Your task to perform on an android device: toggle priority inbox in the gmail app Image 0: 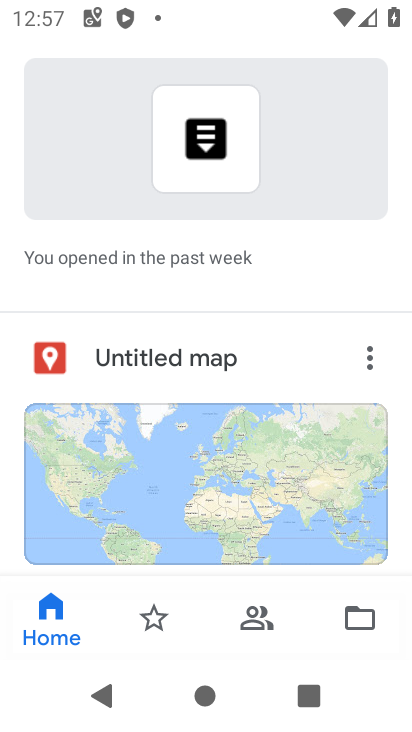
Step 0: press home button
Your task to perform on an android device: toggle priority inbox in the gmail app Image 1: 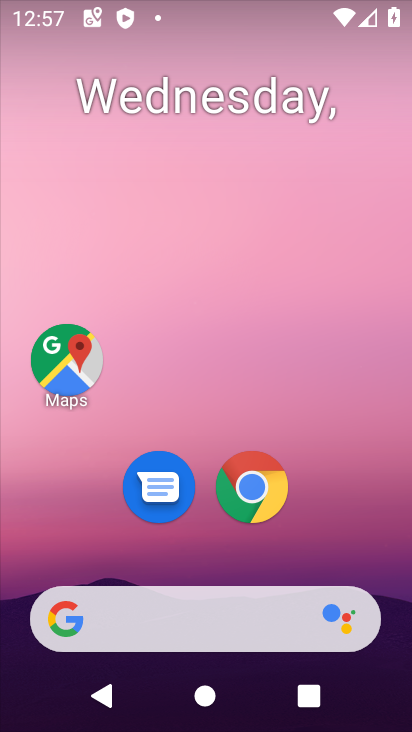
Step 1: drag from (257, 553) to (198, 159)
Your task to perform on an android device: toggle priority inbox in the gmail app Image 2: 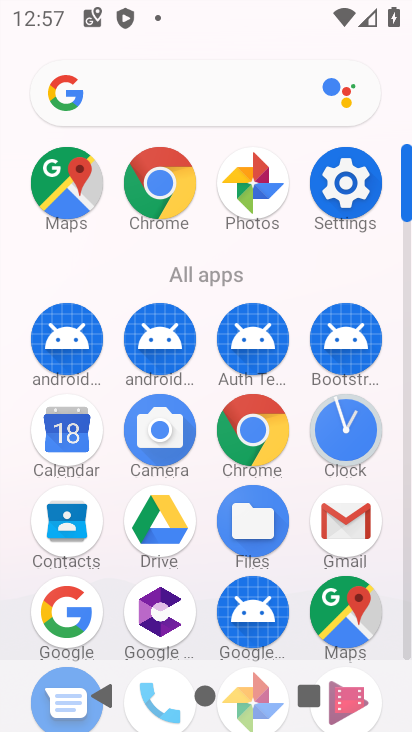
Step 2: click (343, 525)
Your task to perform on an android device: toggle priority inbox in the gmail app Image 3: 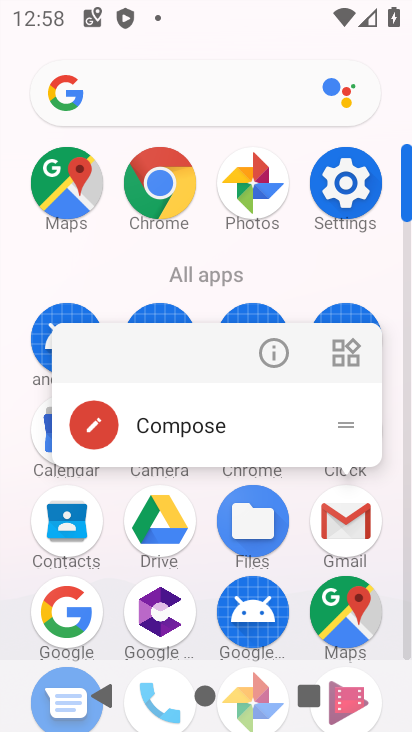
Step 3: click (348, 510)
Your task to perform on an android device: toggle priority inbox in the gmail app Image 4: 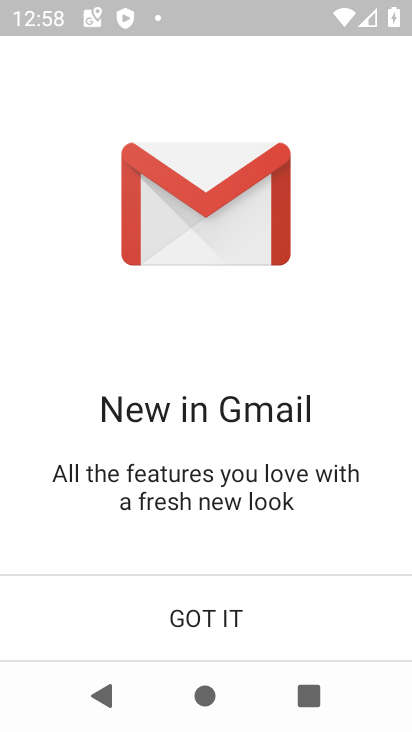
Step 4: click (270, 635)
Your task to perform on an android device: toggle priority inbox in the gmail app Image 5: 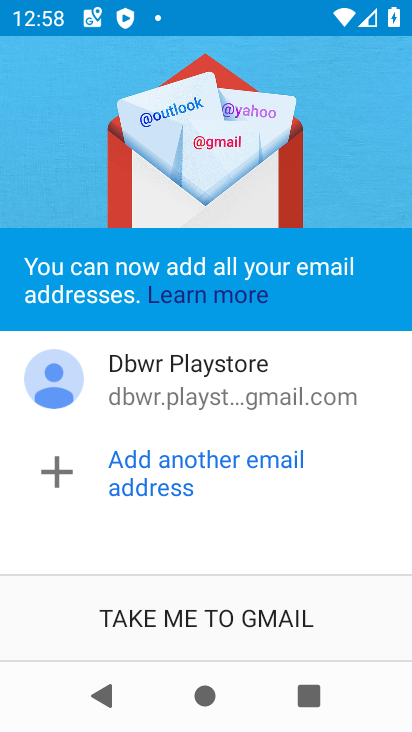
Step 5: click (271, 635)
Your task to perform on an android device: toggle priority inbox in the gmail app Image 6: 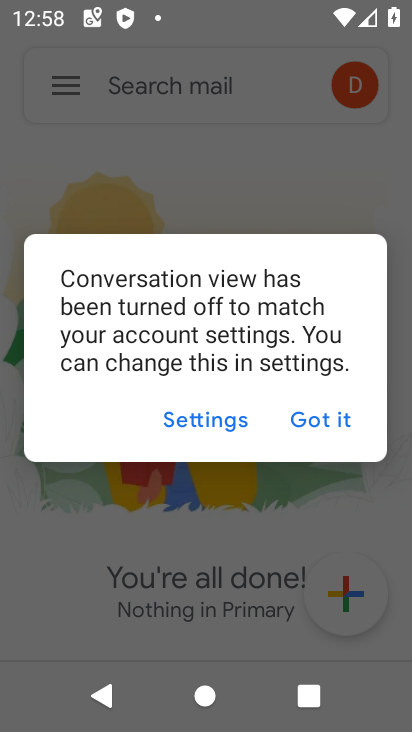
Step 6: click (211, 429)
Your task to perform on an android device: toggle priority inbox in the gmail app Image 7: 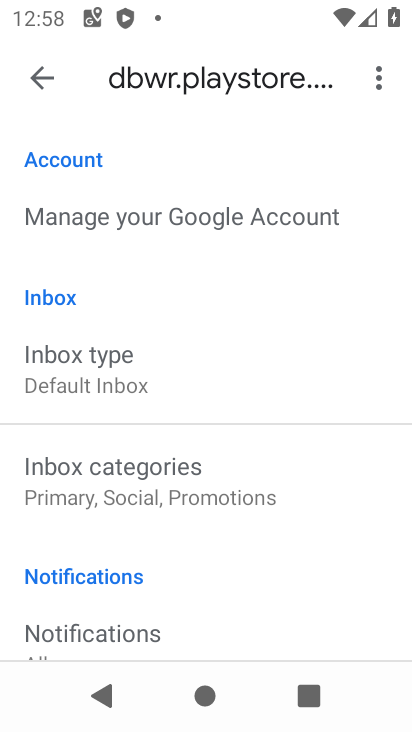
Step 7: click (137, 367)
Your task to perform on an android device: toggle priority inbox in the gmail app Image 8: 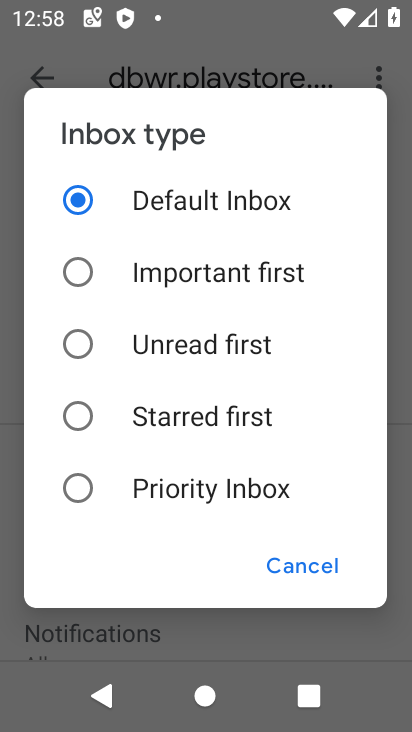
Step 8: click (154, 492)
Your task to perform on an android device: toggle priority inbox in the gmail app Image 9: 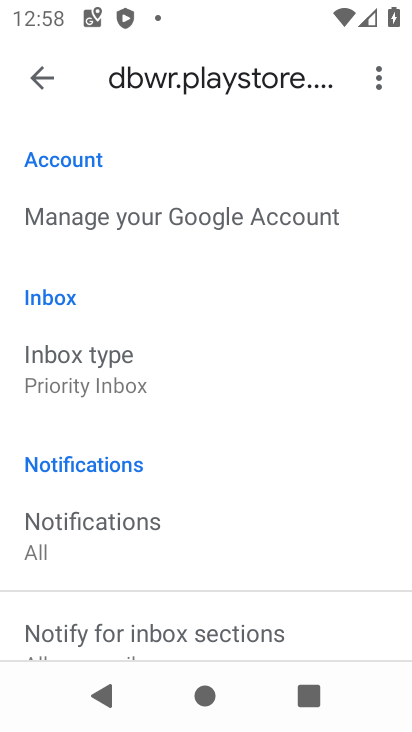
Step 9: task complete